Your task to perform on an android device: Open Reddit.com Image 0: 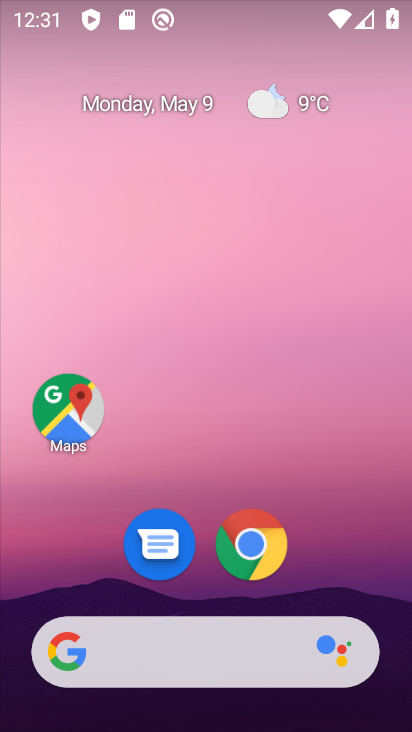
Step 0: click (250, 542)
Your task to perform on an android device: Open Reddit.com Image 1: 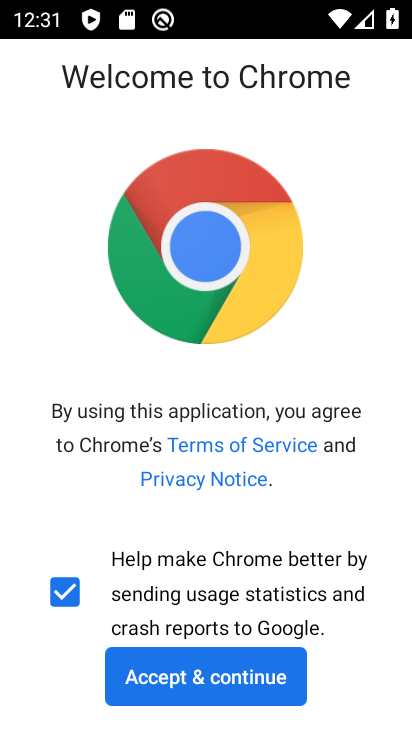
Step 1: click (249, 677)
Your task to perform on an android device: Open Reddit.com Image 2: 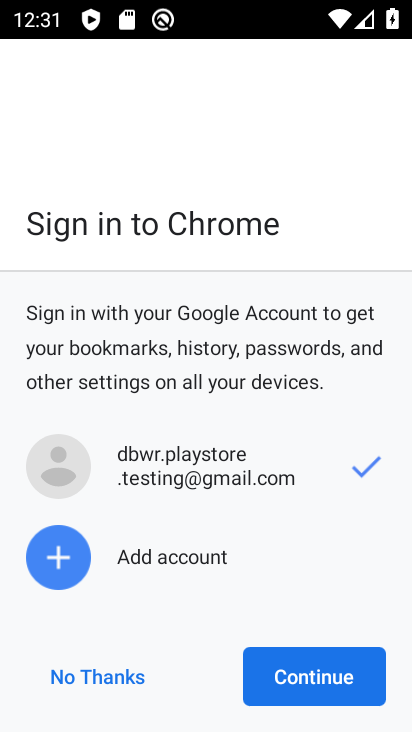
Step 2: click (322, 662)
Your task to perform on an android device: Open Reddit.com Image 3: 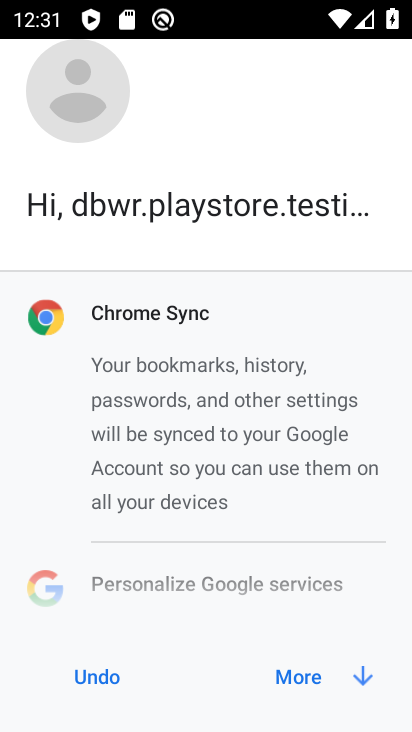
Step 3: click (322, 719)
Your task to perform on an android device: Open Reddit.com Image 4: 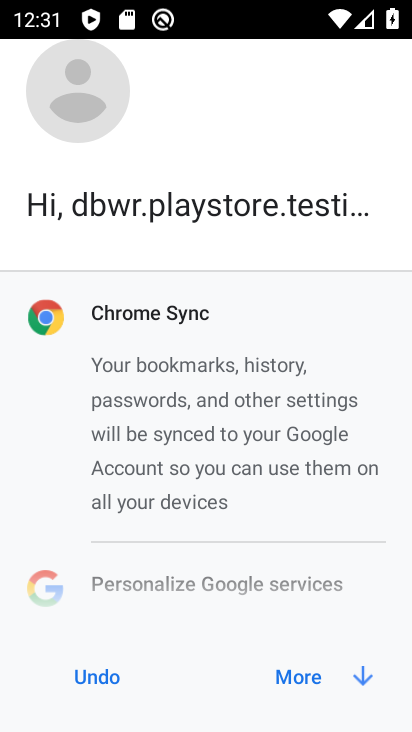
Step 4: click (318, 682)
Your task to perform on an android device: Open Reddit.com Image 5: 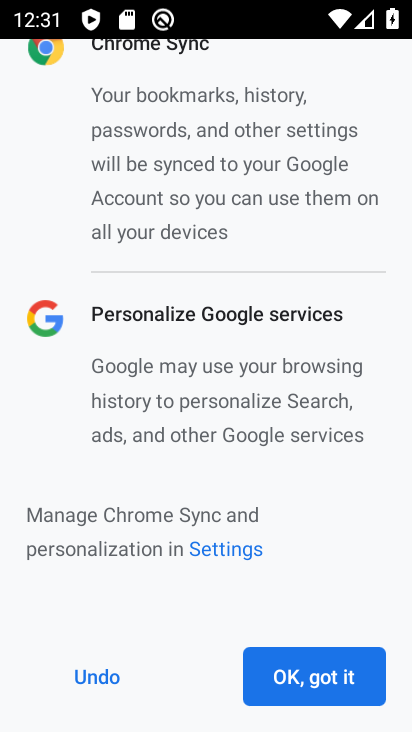
Step 5: click (319, 681)
Your task to perform on an android device: Open Reddit.com Image 6: 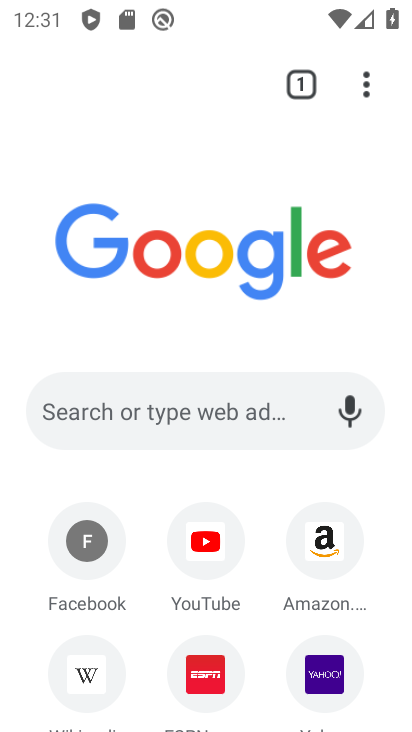
Step 6: click (195, 409)
Your task to perform on an android device: Open Reddit.com Image 7: 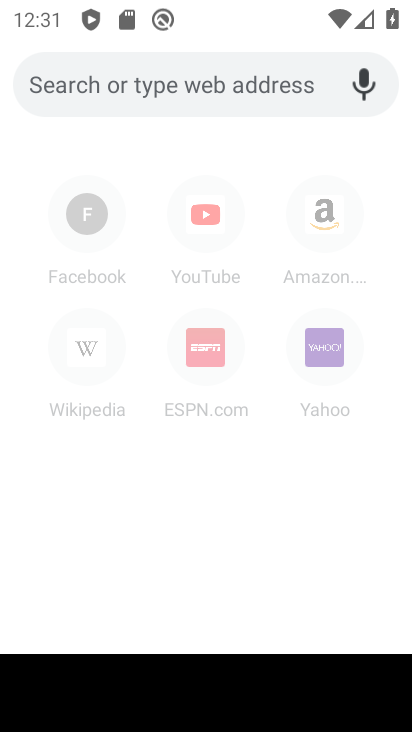
Step 7: type "reddit.com"
Your task to perform on an android device: Open Reddit.com Image 8: 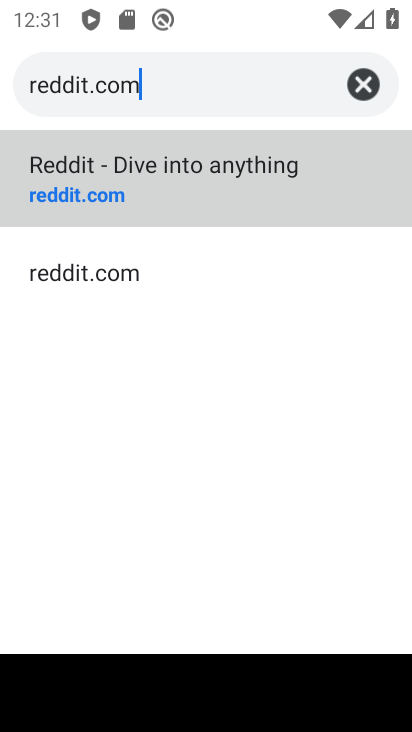
Step 8: click (290, 145)
Your task to perform on an android device: Open Reddit.com Image 9: 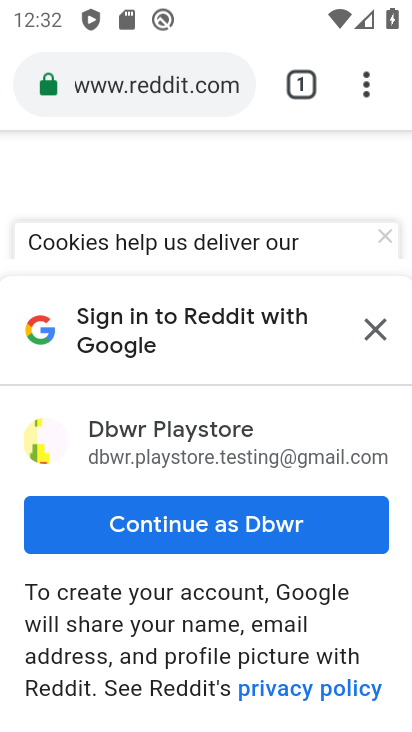
Step 9: click (242, 526)
Your task to perform on an android device: Open Reddit.com Image 10: 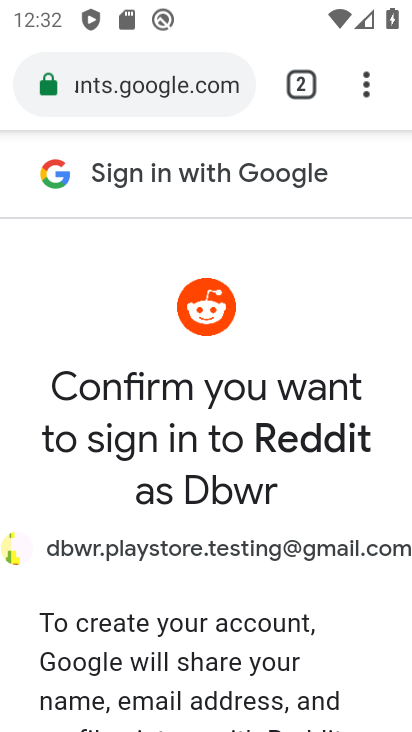
Step 10: drag from (252, 664) to (237, 198)
Your task to perform on an android device: Open Reddit.com Image 11: 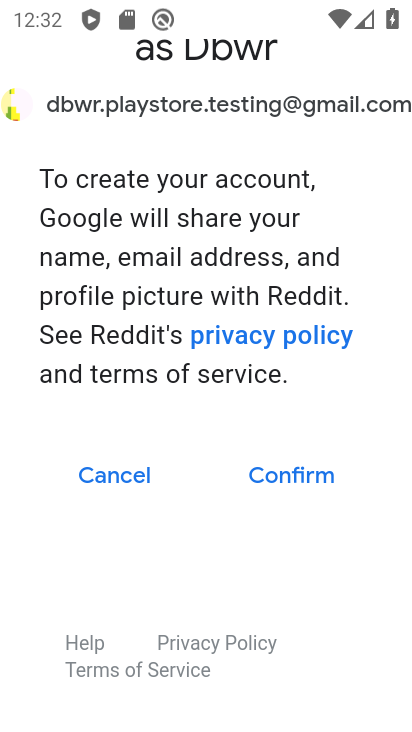
Step 11: click (311, 468)
Your task to perform on an android device: Open Reddit.com Image 12: 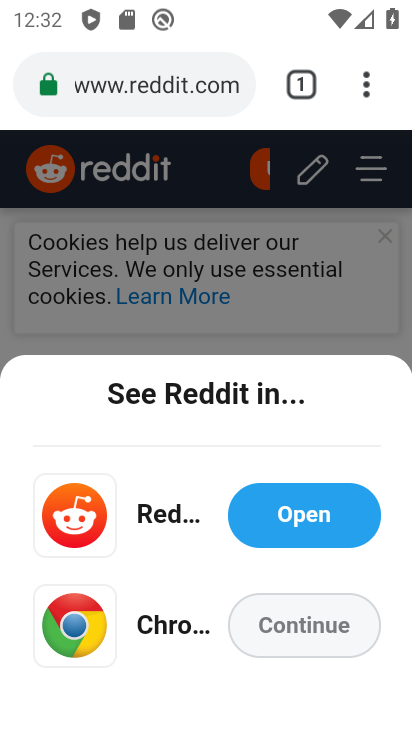
Step 12: task complete